Your task to perform on an android device: Go to notification settings Image 0: 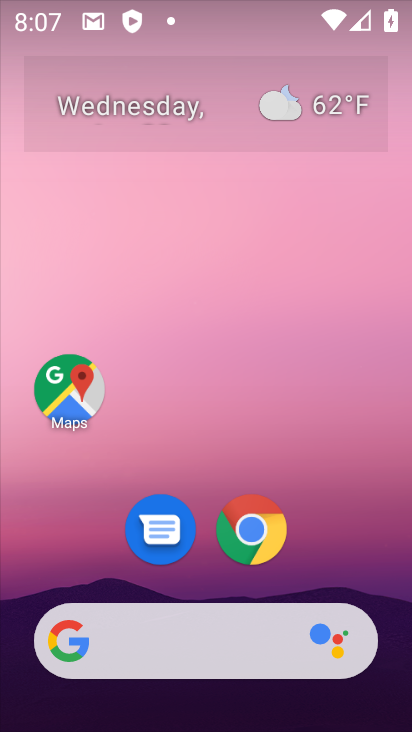
Step 0: drag from (205, 495) to (205, 115)
Your task to perform on an android device: Go to notification settings Image 1: 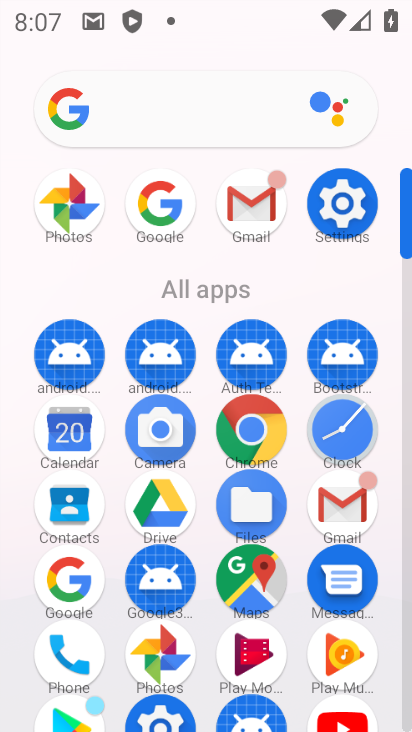
Step 1: click (334, 189)
Your task to perform on an android device: Go to notification settings Image 2: 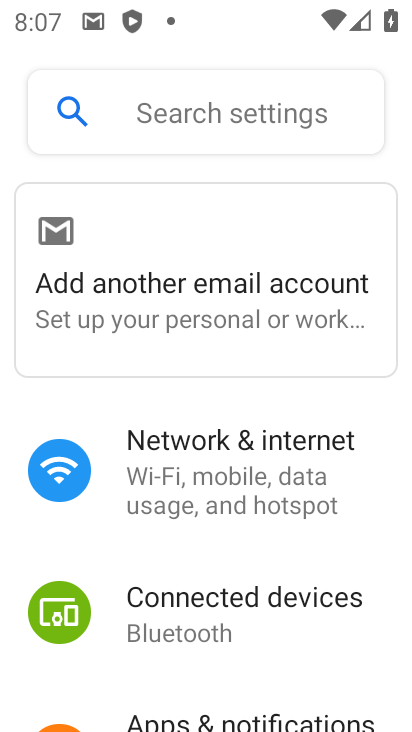
Step 2: drag from (331, 552) to (316, 200)
Your task to perform on an android device: Go to notification settings Image 3: 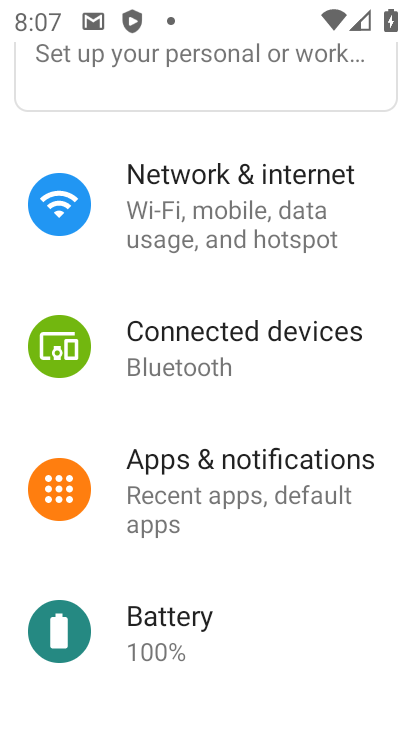
Step 3: click (255, 504)
Your task to perform on an android device: Go to notification settings Image 4: 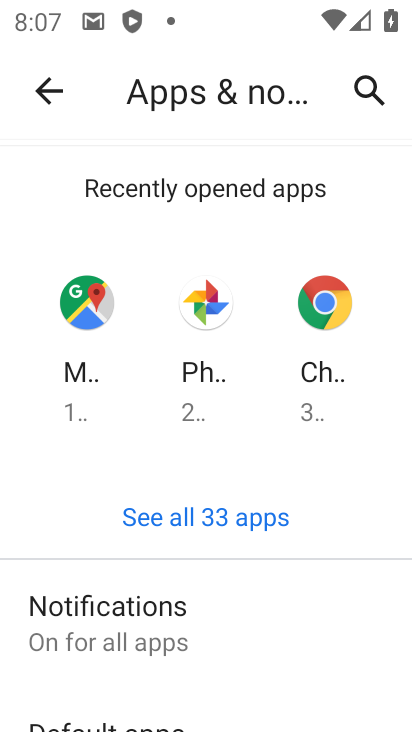
Step 4: task complete